Your task to perform on an android device: Do I have any events tomorrow? Image 0: 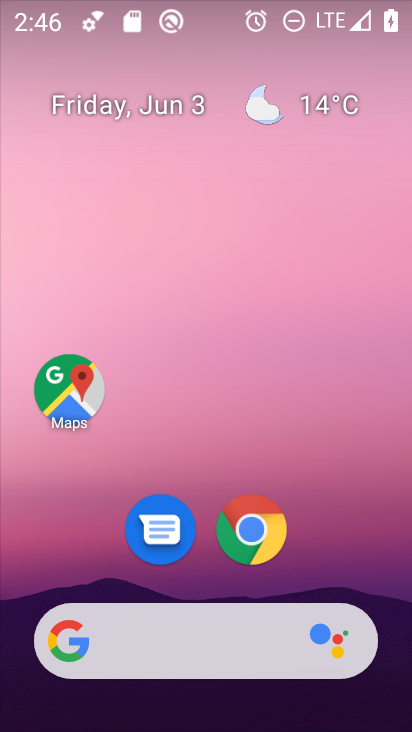
Step 0: drag from (380, 586) to (360, 238)
Your task to perform on an android device: Do I have any events tomorrow? Image 1: 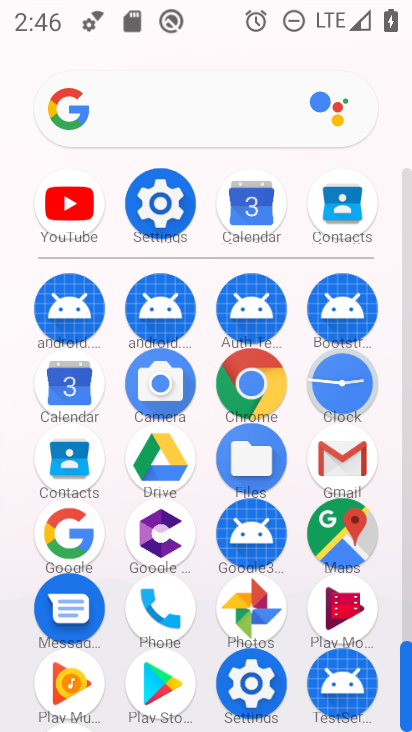
Step 1: click (82, 394)
Your task to perform on an android device: Do I have any events tomorrow? Image 2: 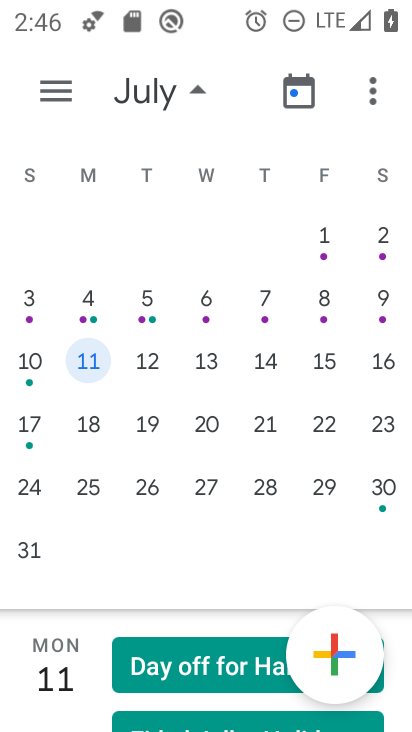
Step 2: drag from (48, 203) to (404, 208)
Your task to perform on an android device: Do I have any events tomorrow? Image 3: 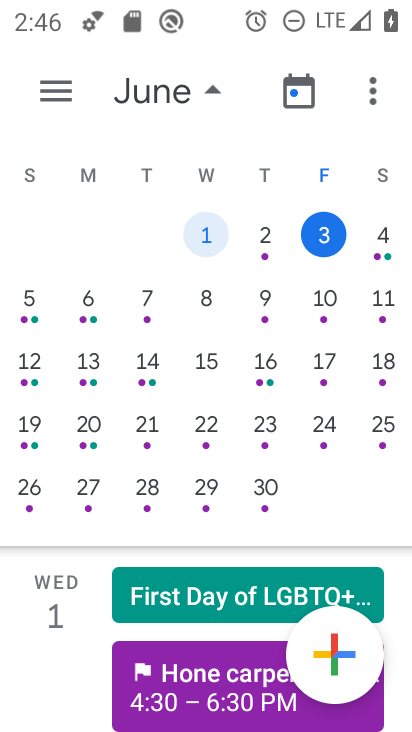
Step 3: click (379, 240)
Your task to perform on an android device: Do I have any events tomorrow? Image 4: 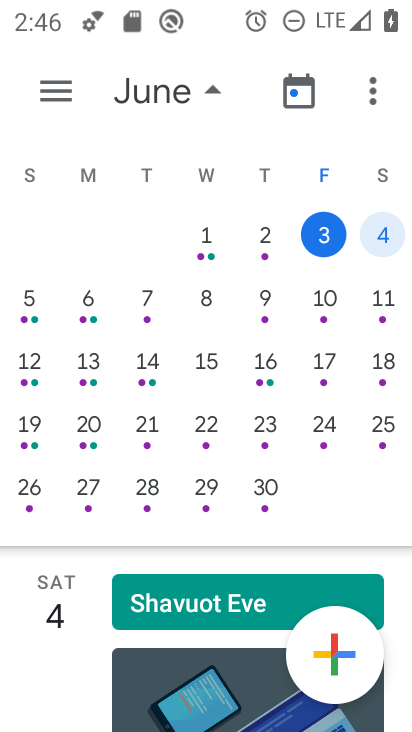
Step 4: drag from (262, 509) to (252, 233)
Your task to perform on an android device: Do I have any events tomorrow? Image 5: 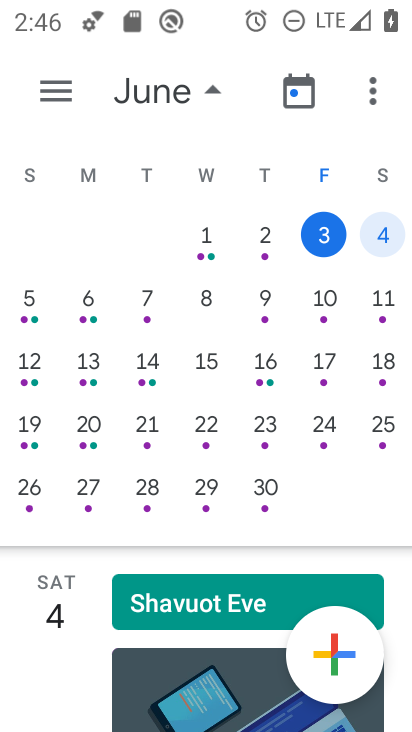
Step 5: click (229, 684)
Your task to perform on an android device: Do I have any events tomorrow? Image 6: 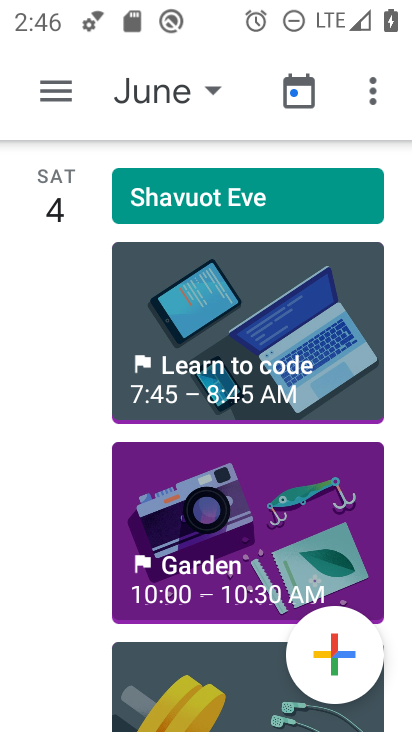
Step 6: click (228, 514)
Your task to perform on an android device: Do I have any events tomorrow? Image 7: 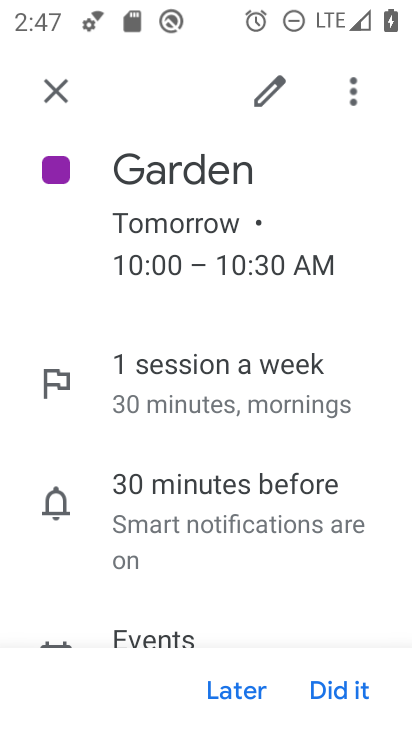
Step 7: task complete